Your task to perform on an android device: What is the news today? Image 0: 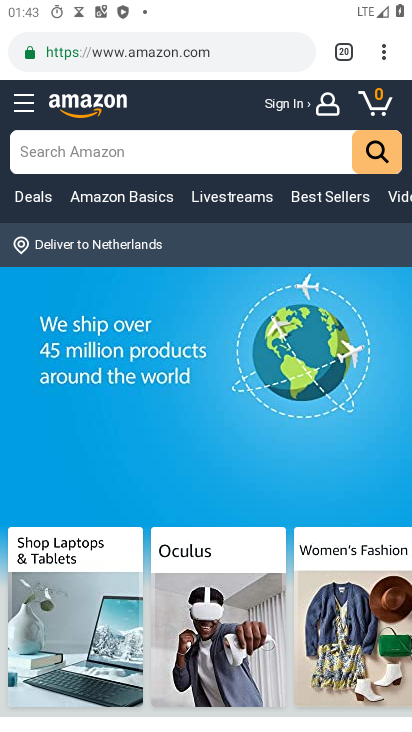
Step 0: press home button
Your task to perform on an android device: What is the news today? Image 1: 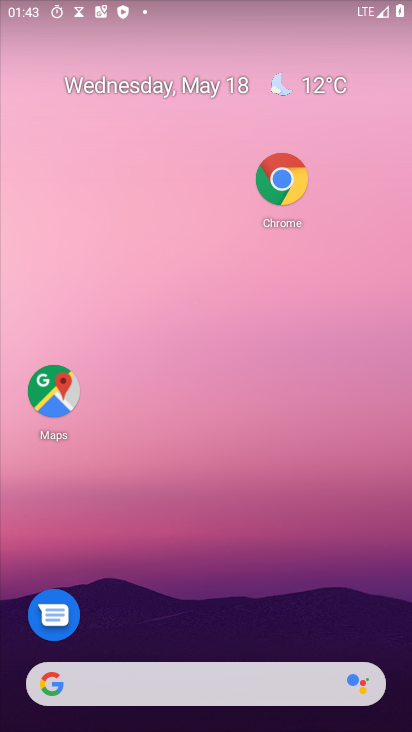
Step 1: click (57, 684)
Your task to perform on an android device: What is the news today? Image 2: 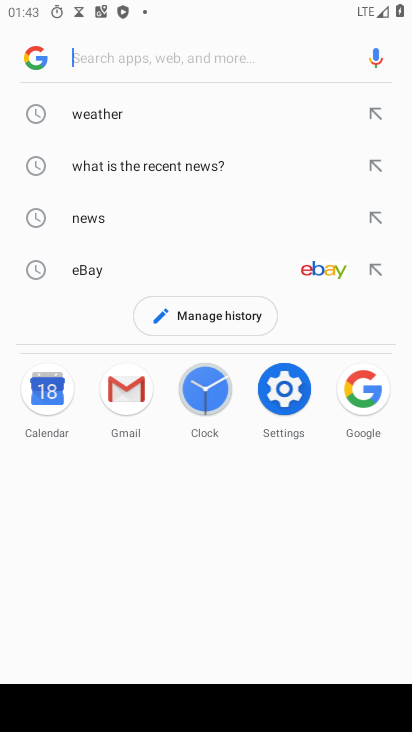
Step 2: click (105, 221)
Your task to perform on an android device: What is the news today? Image 3: 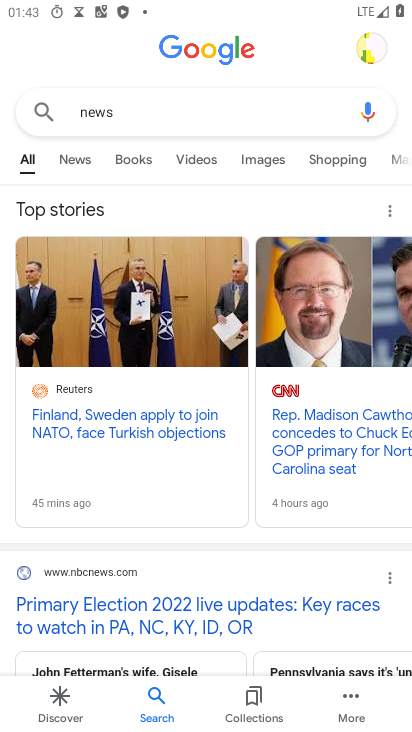
Step 3: click (73, 152)
Your task to perform on an android device: What is the news today? Image 4: 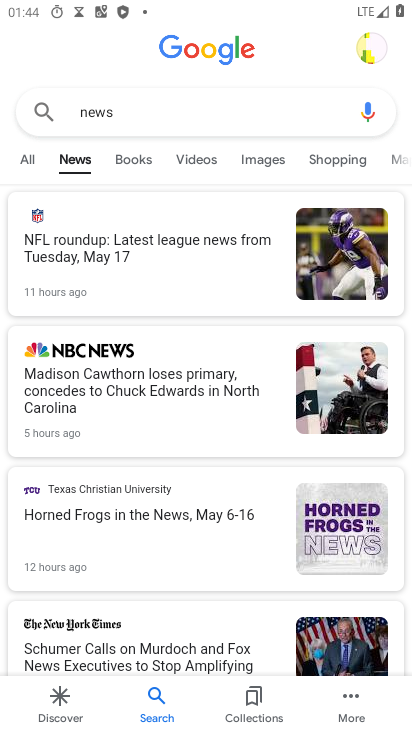
Step 4: task complete